Your task to perform on an android device: What's the news in Paraguay? Image 0: 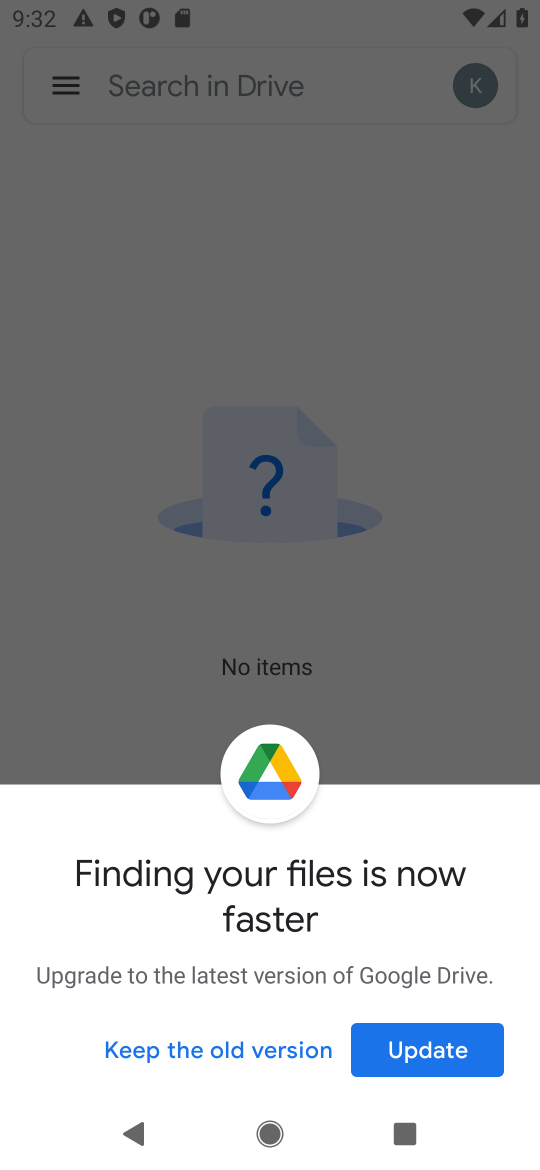
Step 0: press home button
Your task to perform on an android device: What's the news in Paraguay? Image 1: 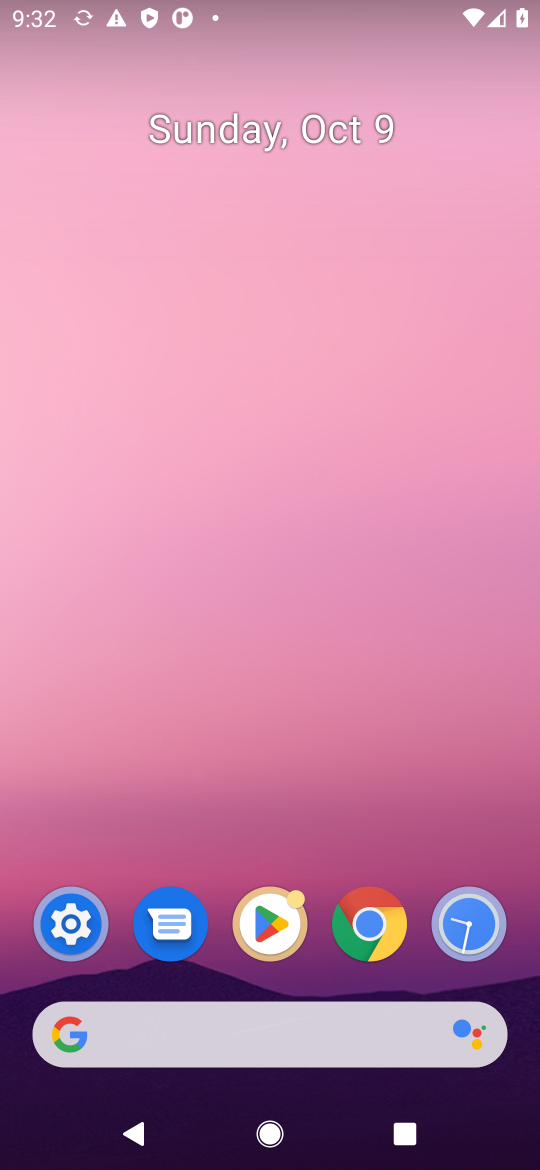
Step 1: click (336, 919)
Your task to perform on an android device: What's the news in Paraguay? Image 2: 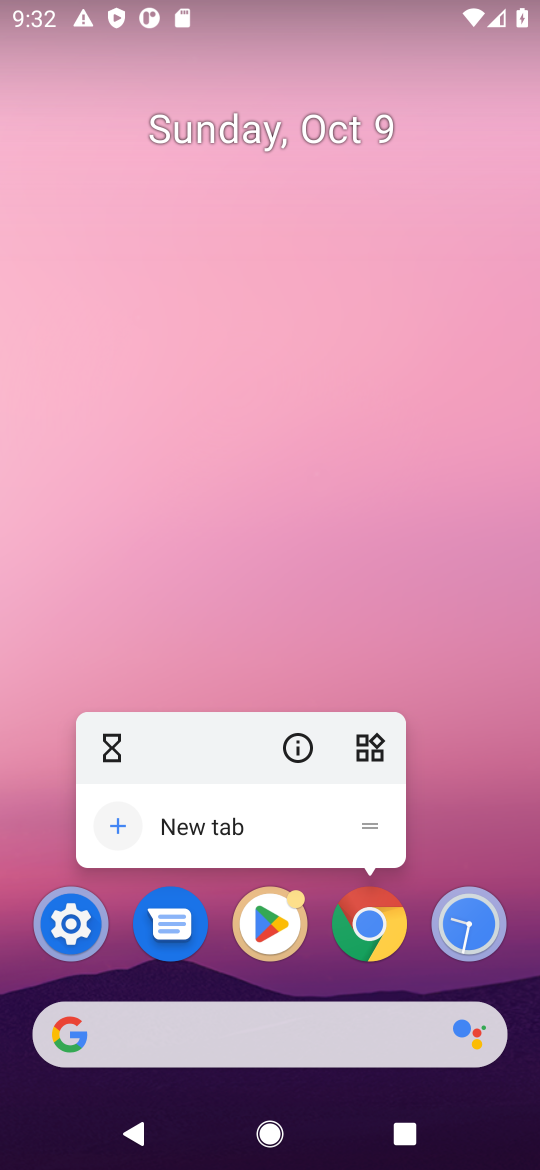
Step 2: click (383, 926)
Your task to perform on an android device: What's the news in Paraguay? Image 3: 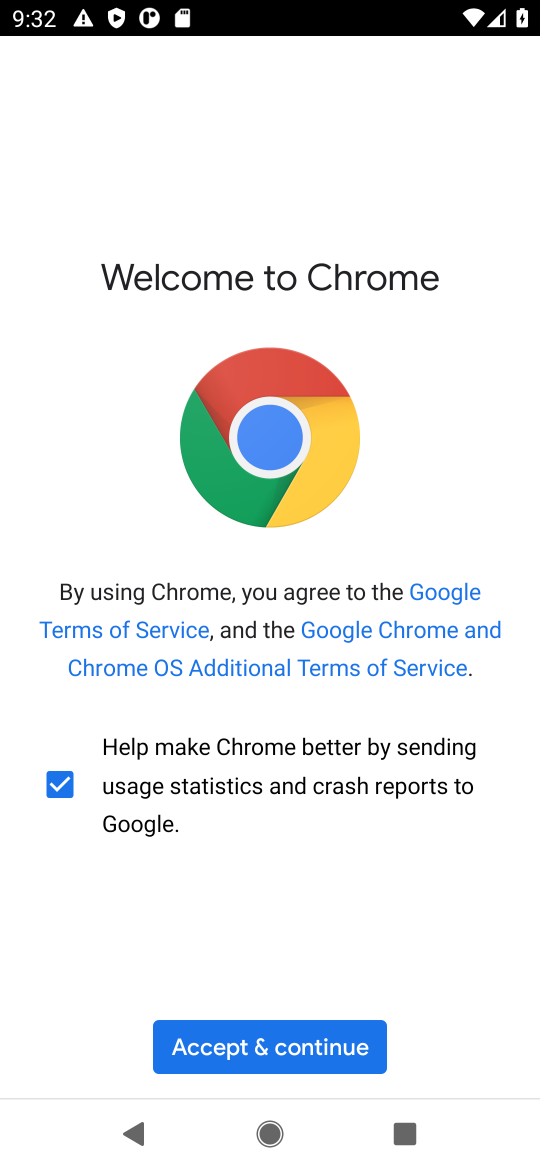
Step 3: click (312, 1057)
Your task to perform on an android device: What's the news in Paraguay? Image 4: 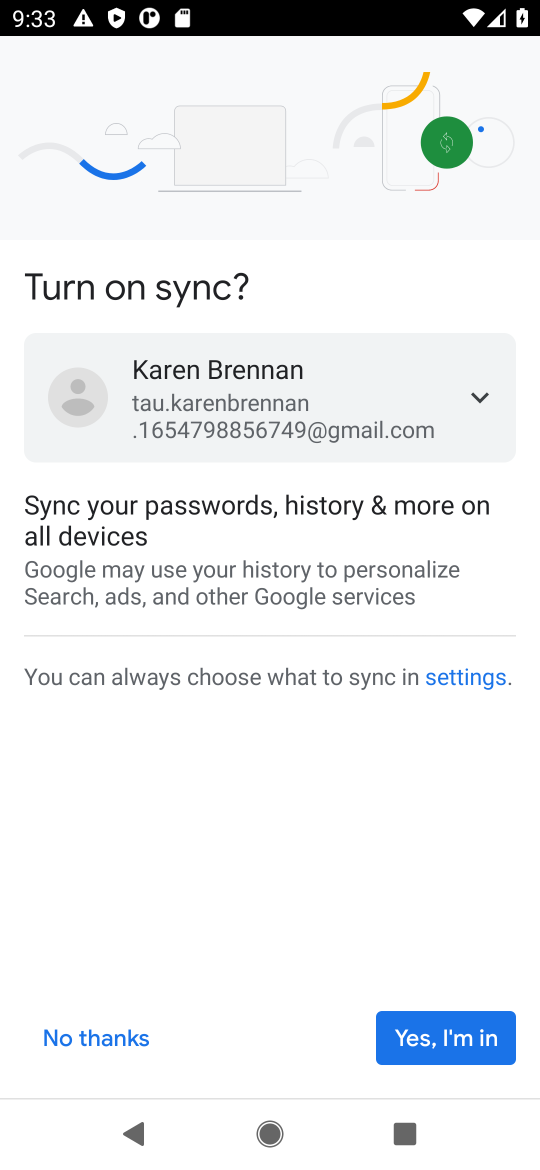
Step 4: click (412, 1043)
Your task to perform on an android device: What's the news in Paraguay? Image 5: 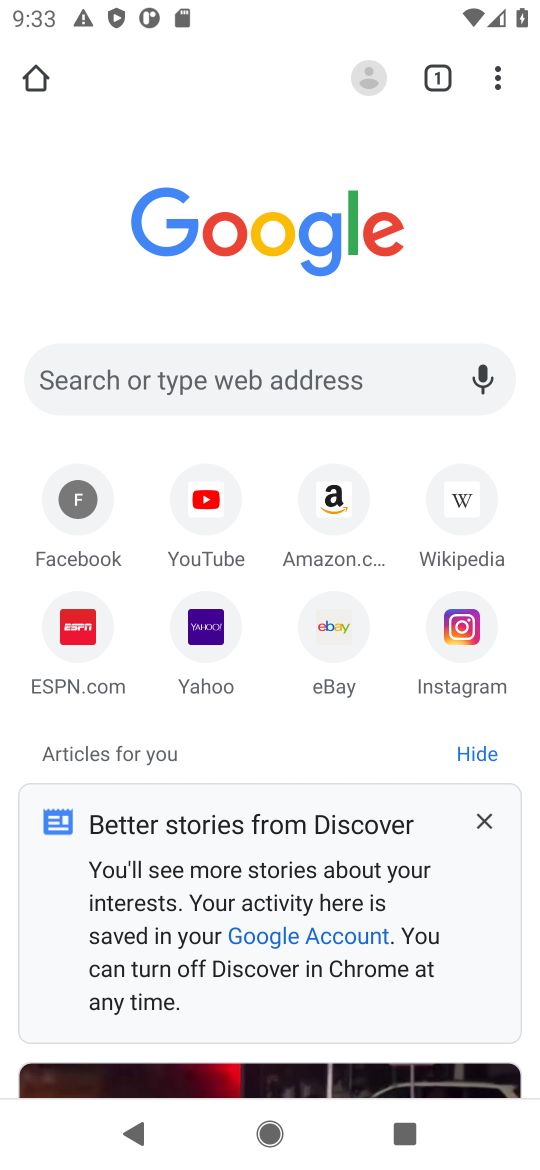
Step 5: click (248, 378)
Your task to perform on an android device: What's the news in Paraguay? Image 6: 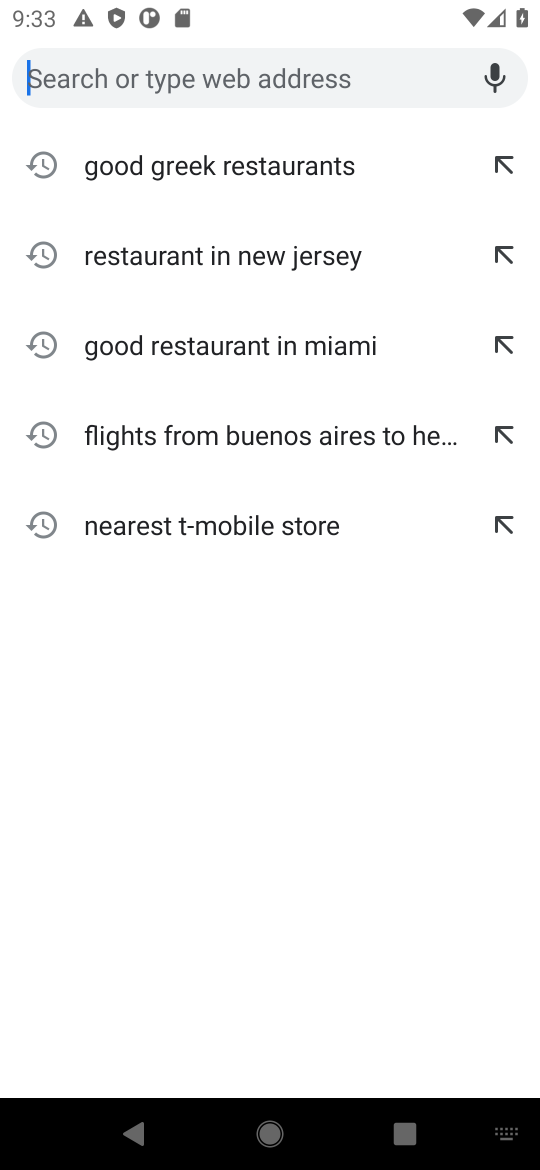
Step 6: type "What's the news in Paraguay?"
Your task to perform on an android device: What's the news in Paraguay? Image 7: 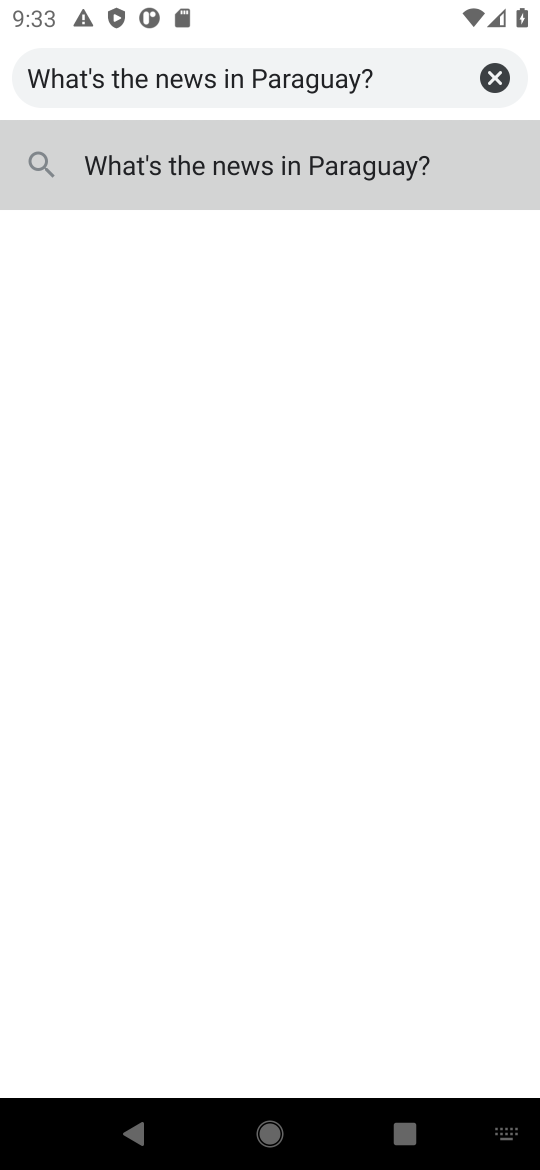
Step 7: press enter
Your task to perform on an android device: What's the news in Paraguay? Image 8: 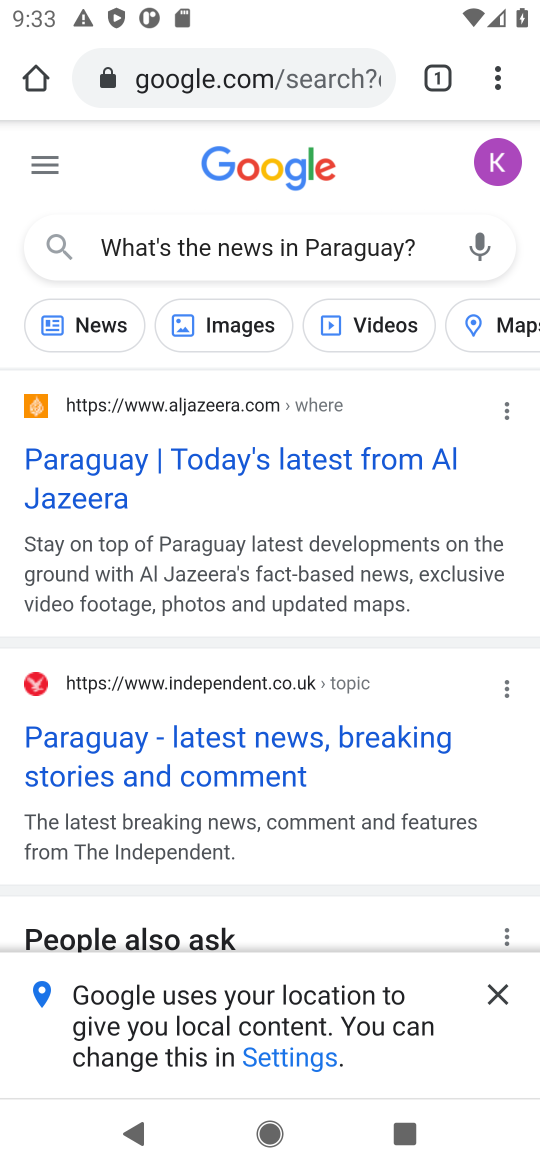
Step 8: click (105, 341)
Your task to perform on an android device: What's the news in Paraguay? Image 9: 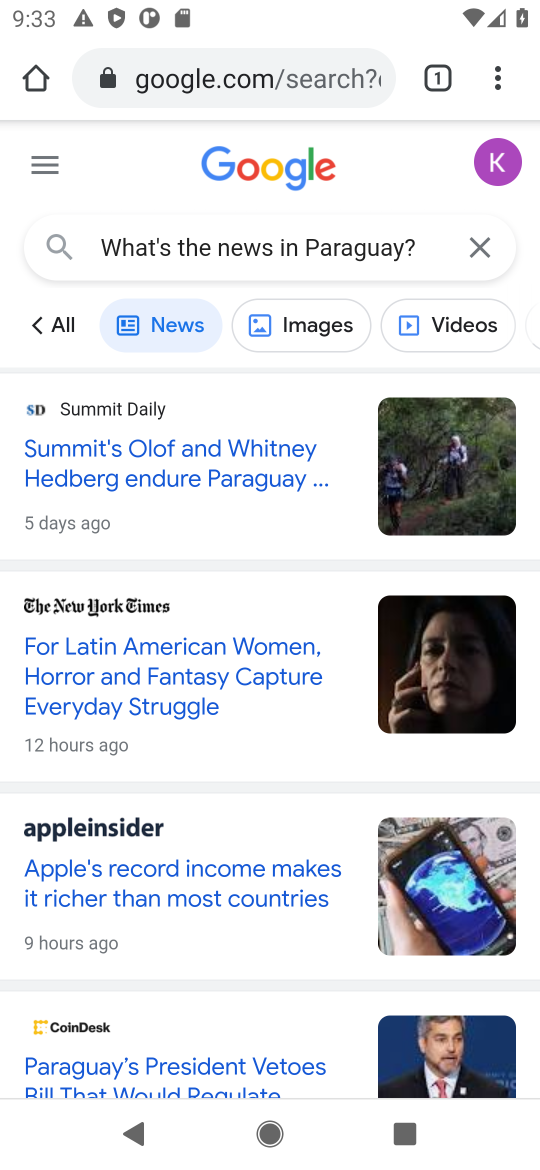
Step 9: task complete